Your task to perform on an android device: What is the news today? Image 0: 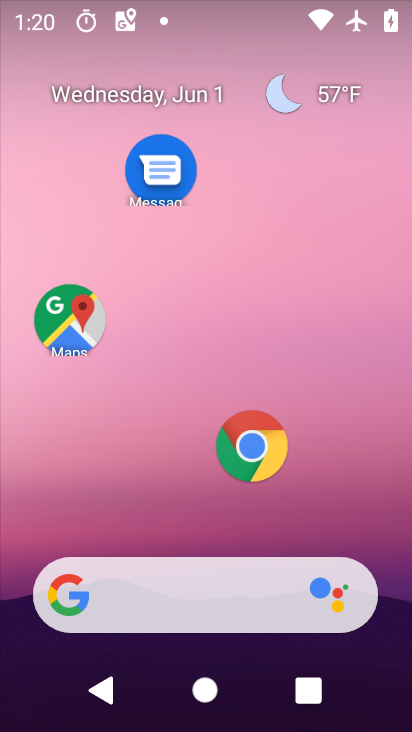
Step 0: drag from (244, 383) to (257, 210)
Your task to perform on an android device: What is the news today? Image 1: 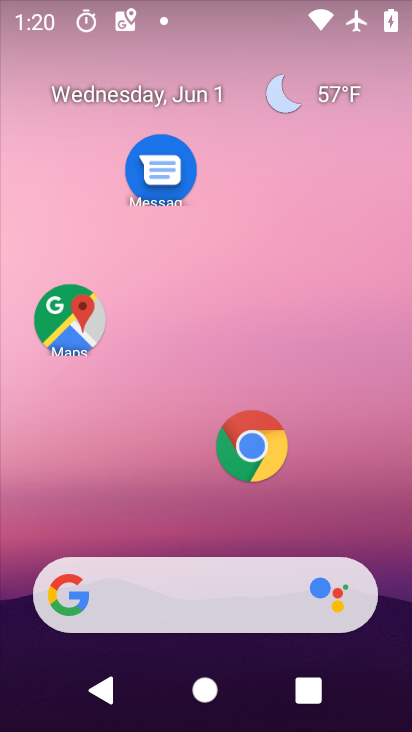
Step 1: click (125, 72)
Your task to perform on an android device: What is the news today? Image 2: 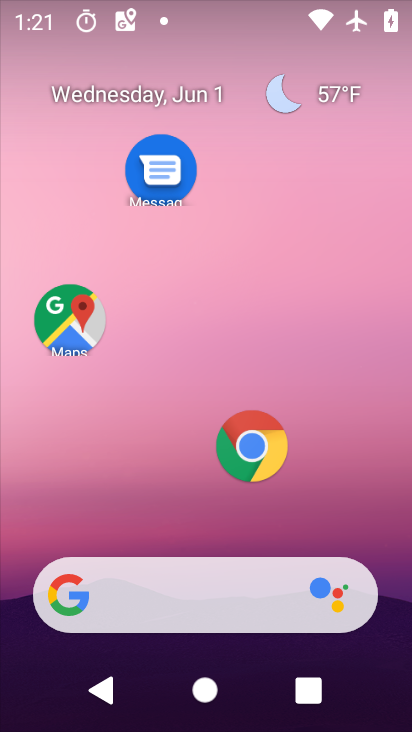
Step 2: drag from (180, 497) to (272, 65)
Your task to perform on an android device: What is the news today? Image 3: 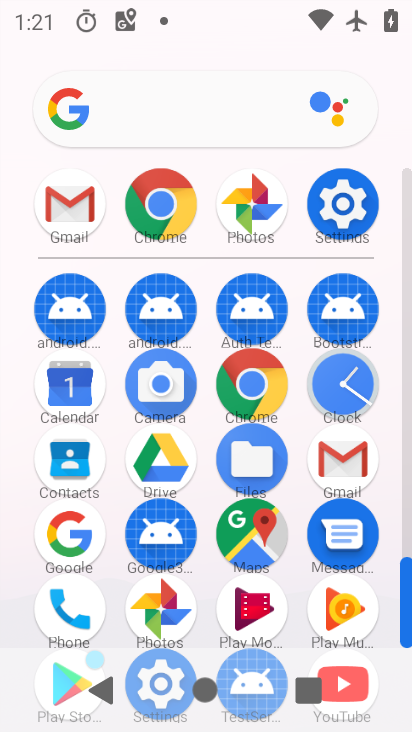
Step 3: click (67, 550)
Your task to perform on an android device: What is the news today? Image 4: 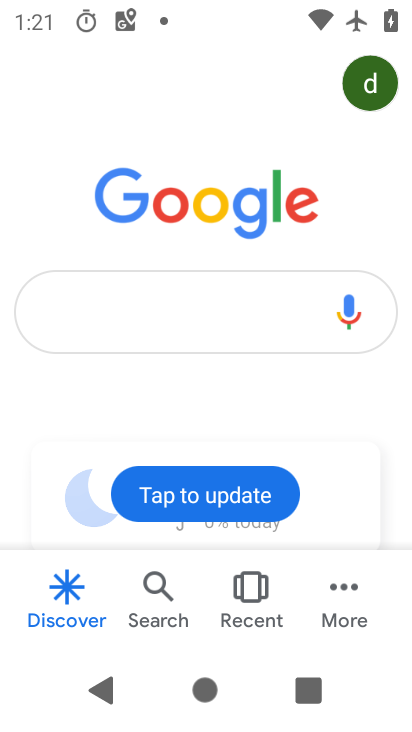
Step 4: task complete